Your task to perform on an android device: change the upload size in google photos Image 0: 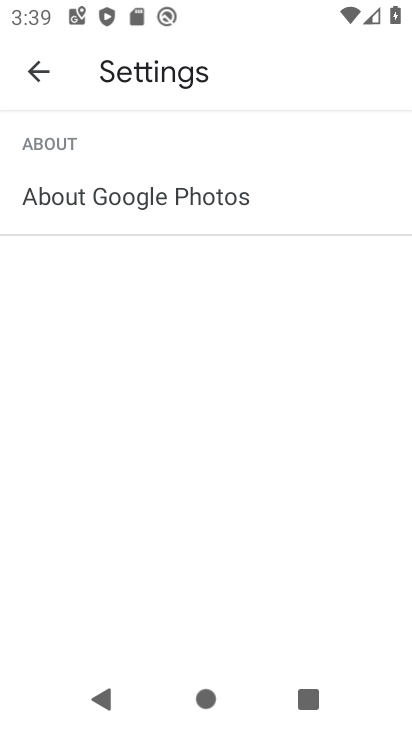
Step 0: press back button
Your task to perform on an android device: change the upload size in google photos Image 1: 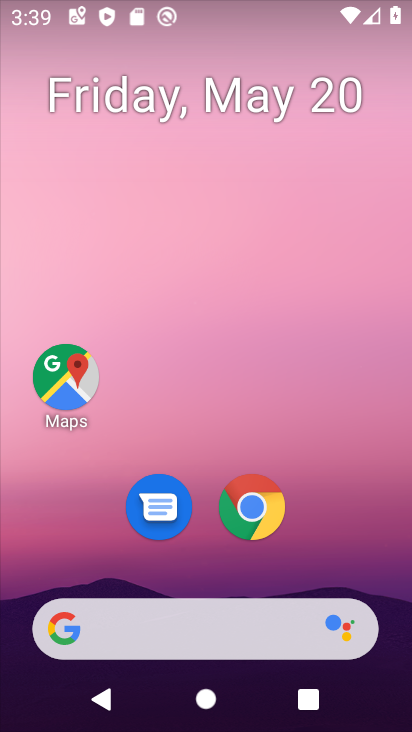
Step 1: drag from (324, 549) to (255, 96)
Your task to perform on an android device: change the upload size in google photos Image 2: 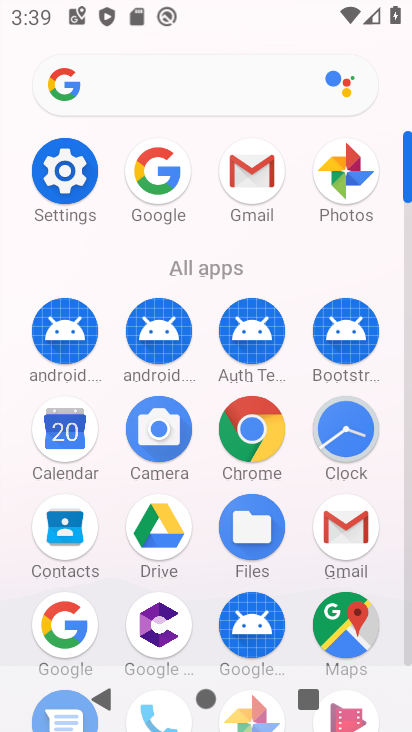
Step 2: click (347, 171)
Your task to perform on an android device: change the upload size in google photos Image 3: 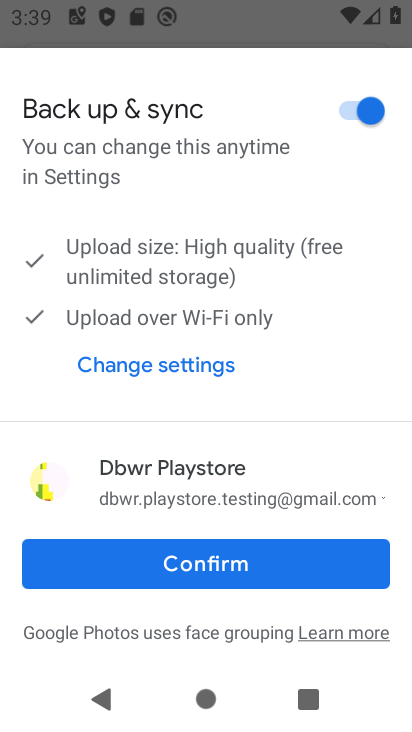
Step 3: click (200, 555)
Your task to perform on an android device: change the upload size in google photos Image 4: 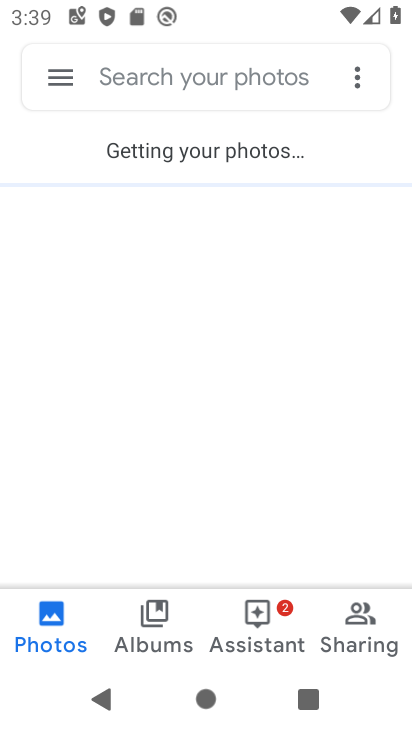
Step 4: click (66, 73)
Your task to perform on an android device: change the upload size in google photos Image 5: 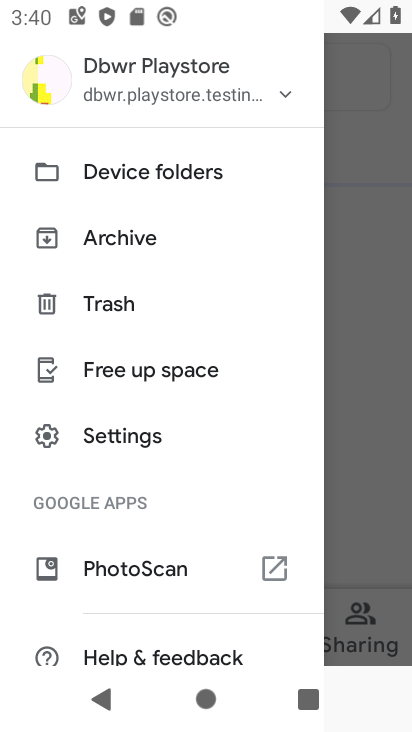
Step 5: click (114, 438)
Your task to perform on an android device: change the upload size in google photos Image 6: 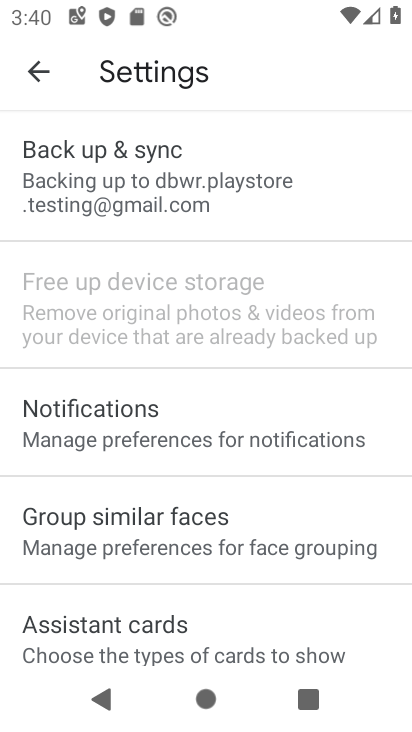
Step 6: click (116, 181)
Your task to perform on an android device: change the upload size in google photos Image 7: 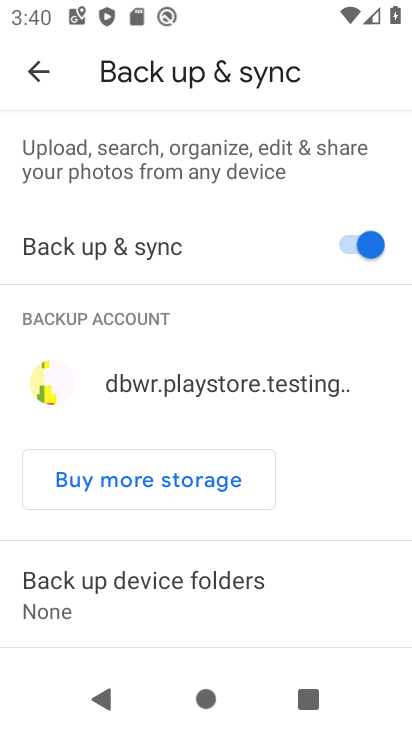
Step 7: drag from (122, 562) to (194, 419)
Your task to perform on an android device: change the upload size in google photos Image 8: 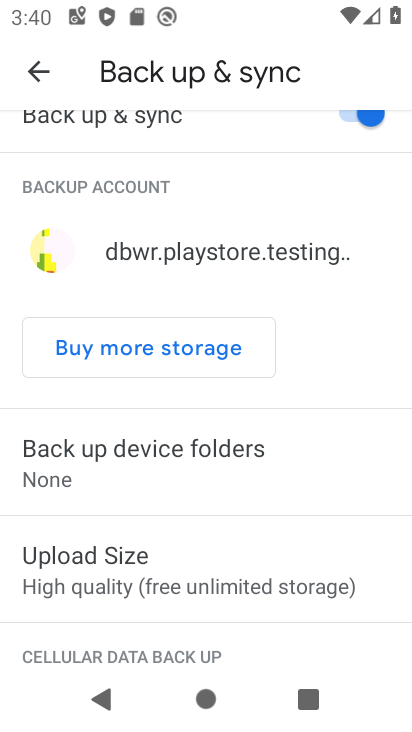
Step 8: click (117, 594)
Your task to perform on an android device: change the upload size in google photos Image 9: 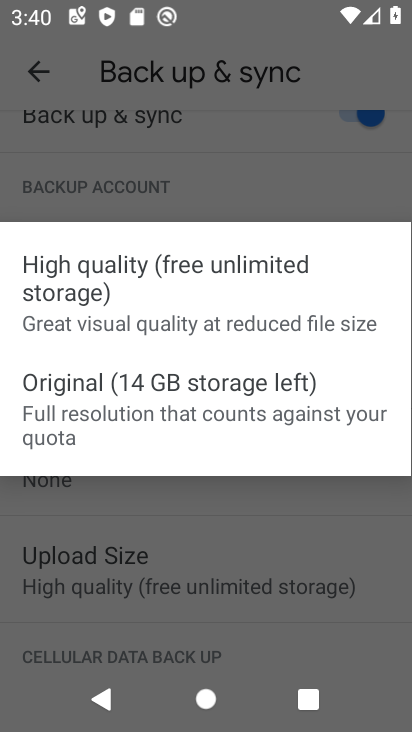
Step 9: click (184, 398)
Your task to perform on an android device: change the upload size in google photos Image 10: 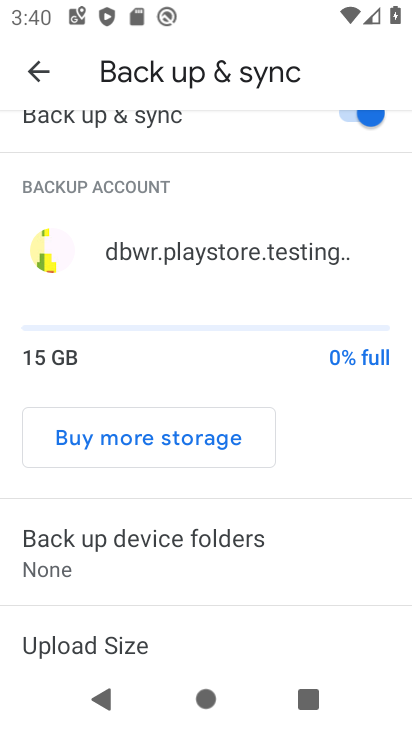
Step 10: task complete